Your task to perform on an android device: Check the weather Image 0: 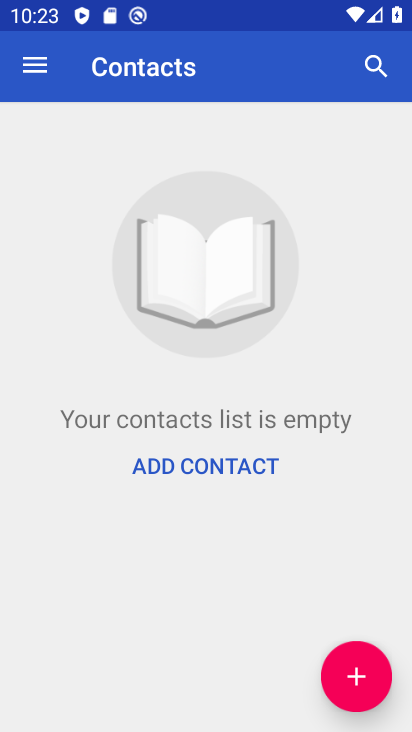
Step 0: press home button
Your task to perform on an android device: Check the weather Image 1: 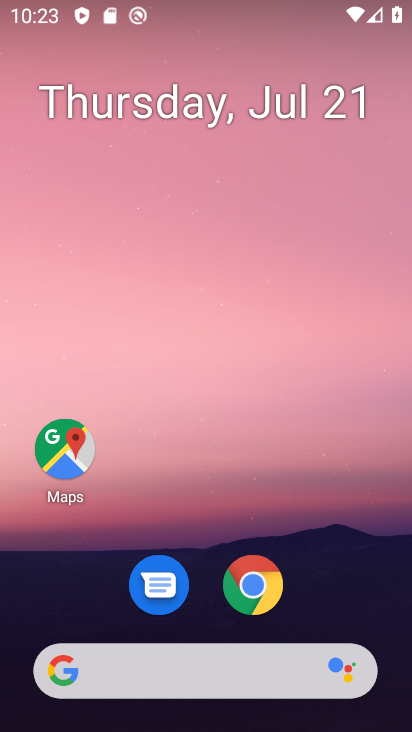
Step 1: click (150, 663)
Your task to perform on an android device: Check the weather Image 2: 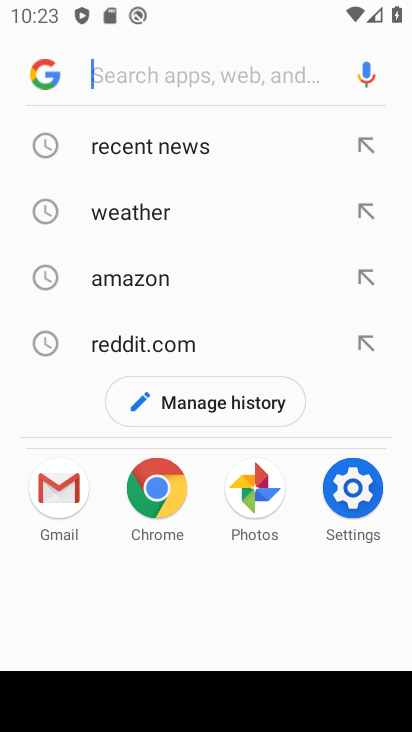
Step 2: click (130, 211)
Your task to perform on an android device: Check the weather Image 3: 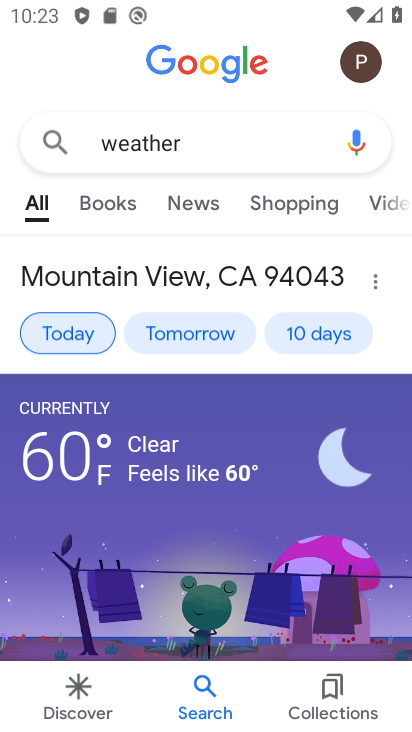
Step 3: task complete